Your task to perform on an android device: find snoozed emails in the gmail app Image 0: 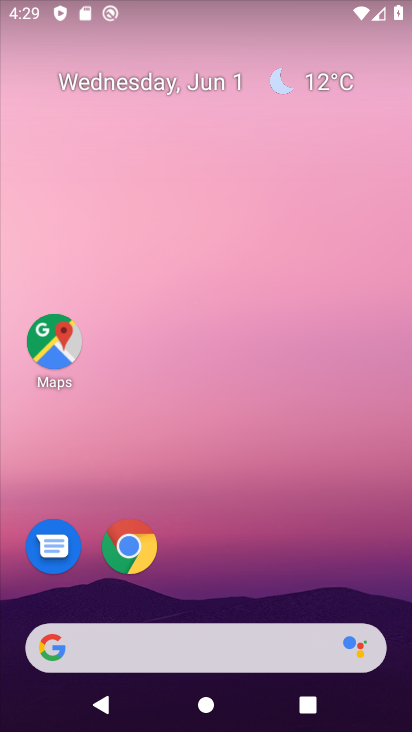
Step 0: drag from (309, 548) to (262, 36)
Your task to perform on an android device: find snoozed emails in the gmail app Image 1: 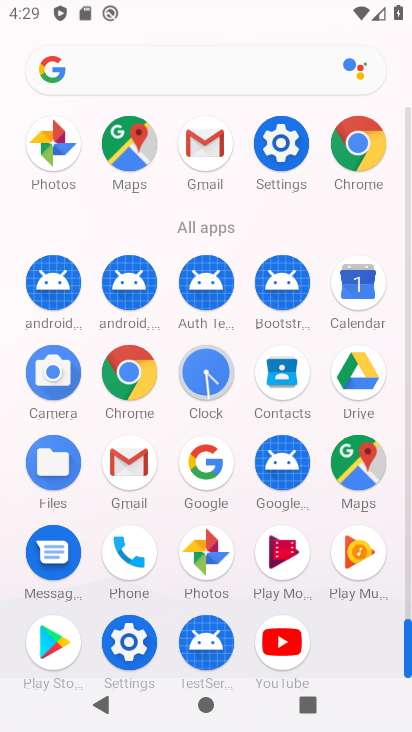
Step 1: drag from (1, 579) to (10, 194)
Your task to perform on an android device: find snoozed emails in the gmail app Image 2: 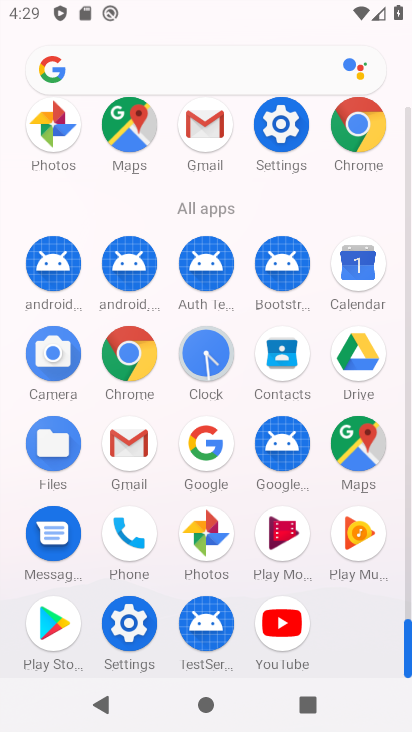
Step 2: drag from (4, 512) to (9, 159)
Your task to perform on an android device: find snoozed emails in the gmail app Image 3: 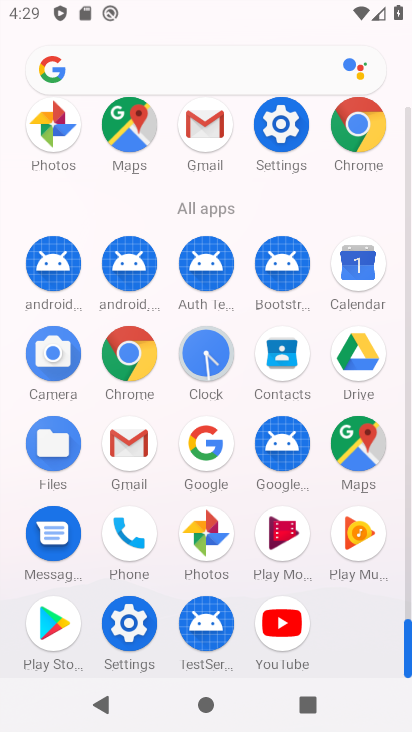
Step 3: click (127, 434)
Your task to perform on an android device: find snoozed emails in the gmail app Image 4: 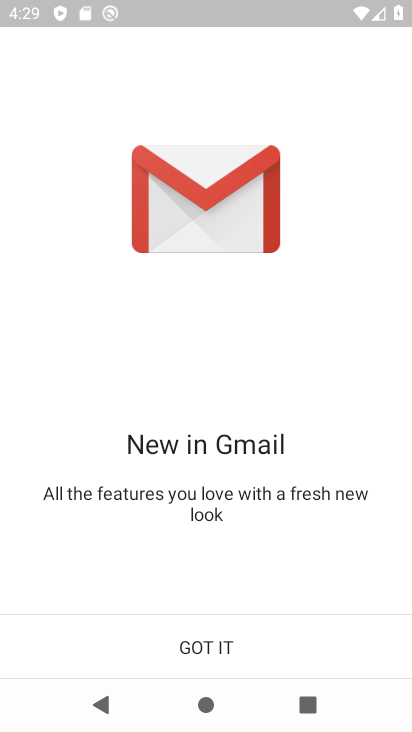
Step 4: click (223, 646)
Your task to perform on an android device: find snoozed emails in the gmail app Image 5: 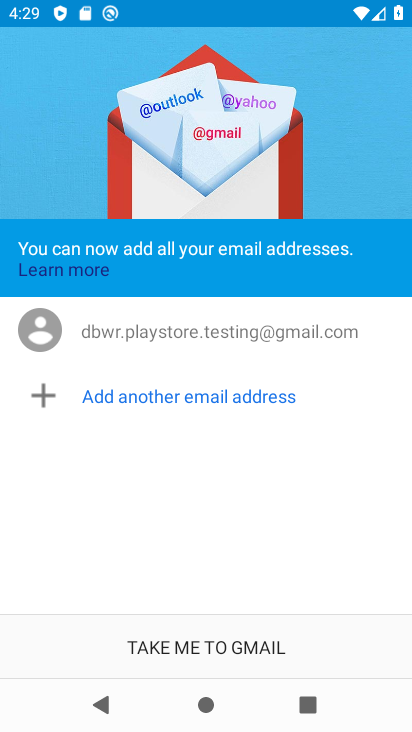
Step 5: click (232, 658)
Your task to perform on an android device: find snoozed emails in the gmail app Image 6: 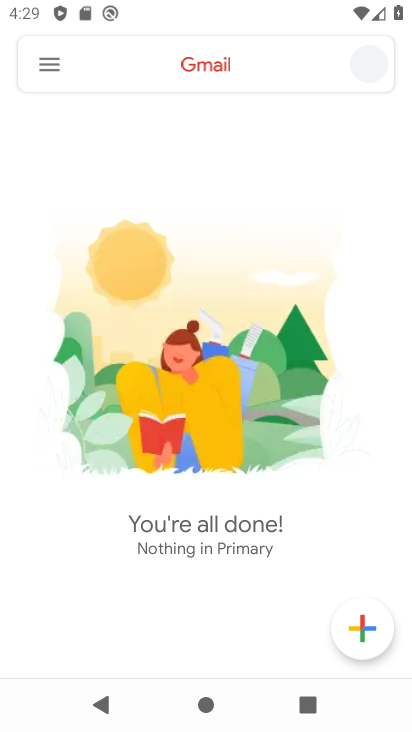
Step 6: click (54, 65)
Your task to perform on an android device: find snoozed emails in the gmail app Image 7: 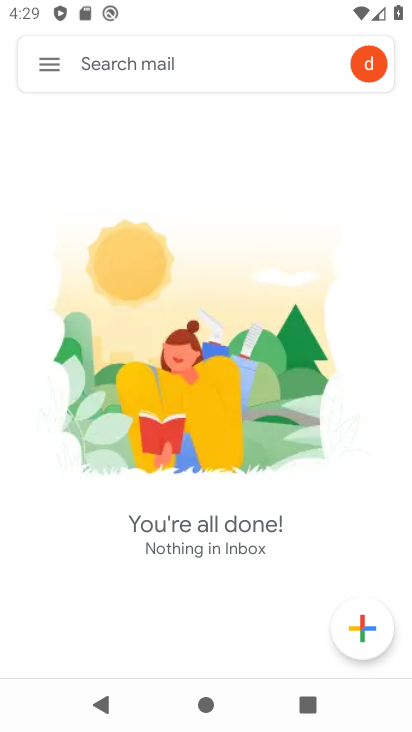
Step 7: click (54, 65)
Your task to perform on an android device: find snoozed emails in the gmail app Image 8: 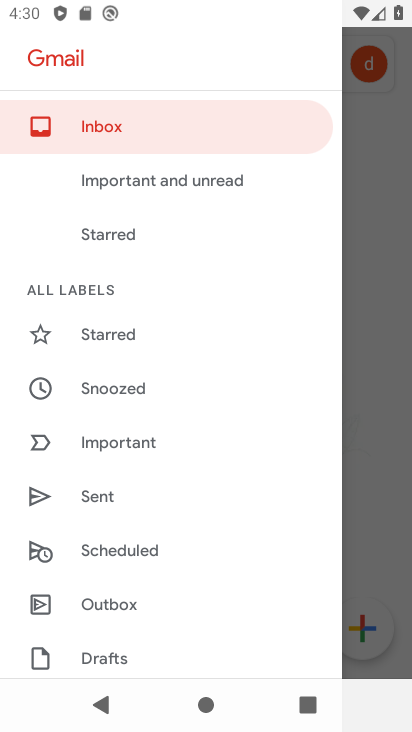
Step 8: click (154, 382)
Your task to perform on an android device: find snoozed emails in the gmail app Image 9: 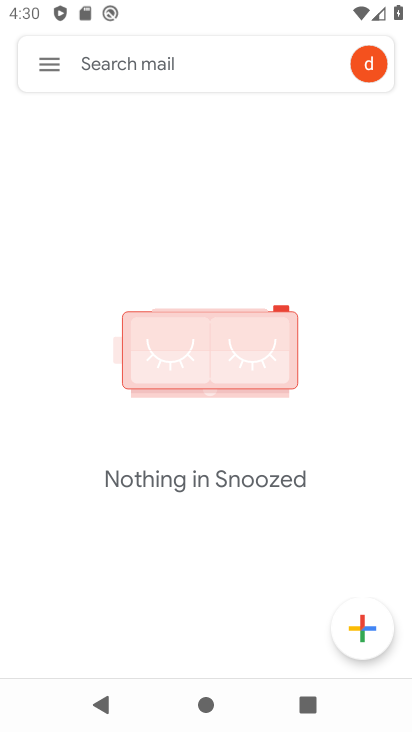
Step 9: task complete